Your task to perform on an android device: Turn on the flashlight Image 0: 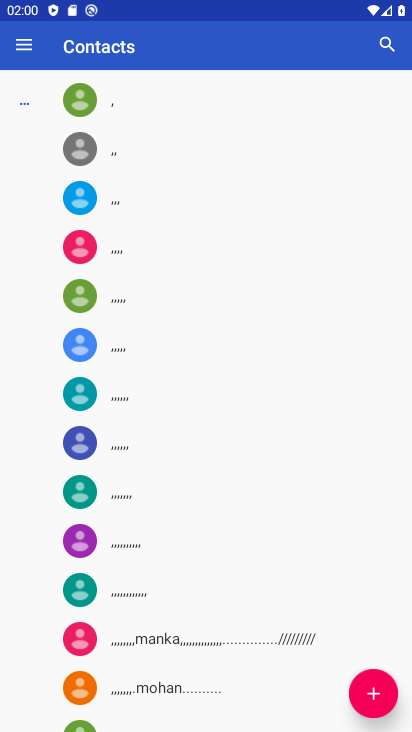
Step 0: press home button
Your task to perform on an android device: Turn on the flashlight Image 1: 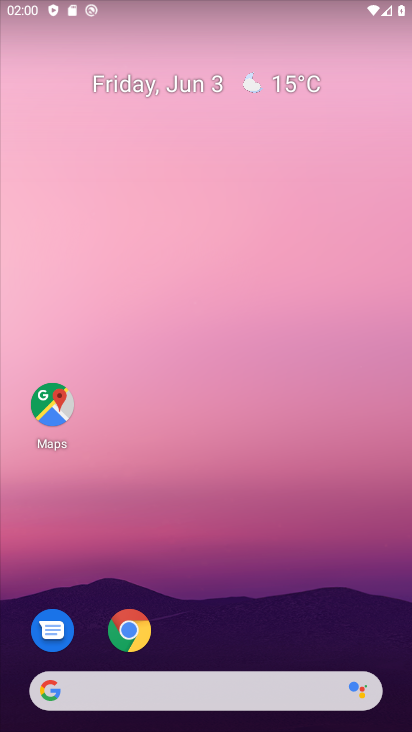
Step 1: drag from (405, 693) to (377, 202)
Your task to perform on an android device: Turn on the flashlight Image 2: 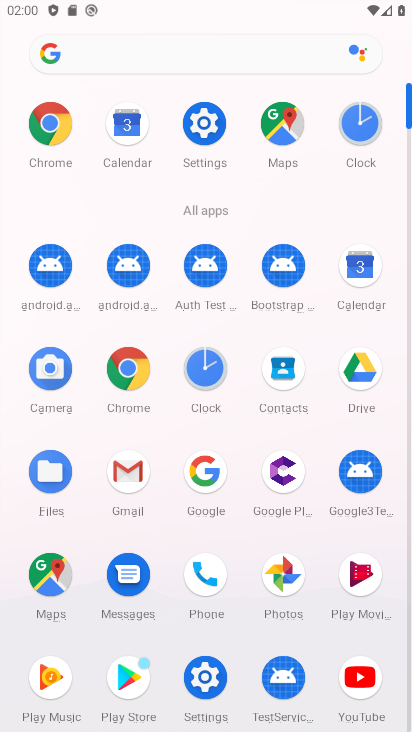
Step 2: click (211, 129)
Your task to perform on an android device: Turn on the flashlight Image 3: 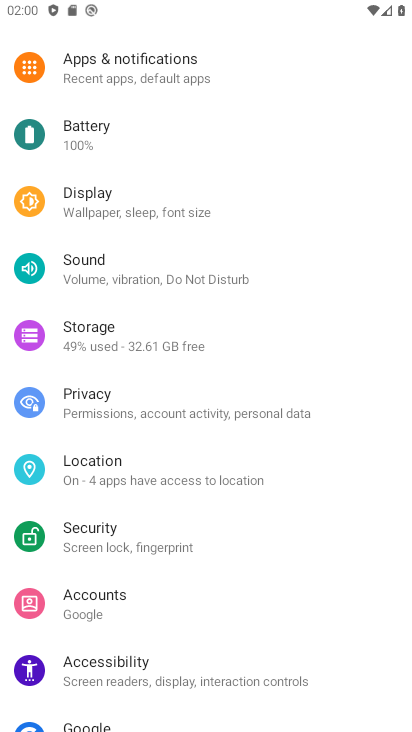
Step 3: click (83, 198)
Your task to perform on an android device: Turn on the flashlight Image 4: 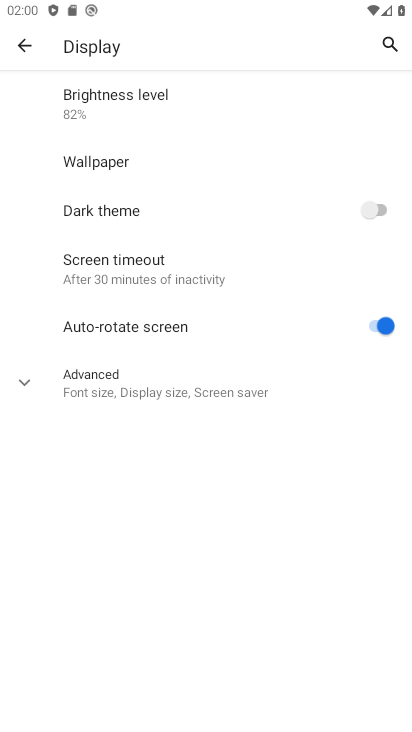
Step 4: task complete